Your task to perform on an android device: turn off location Image 0: 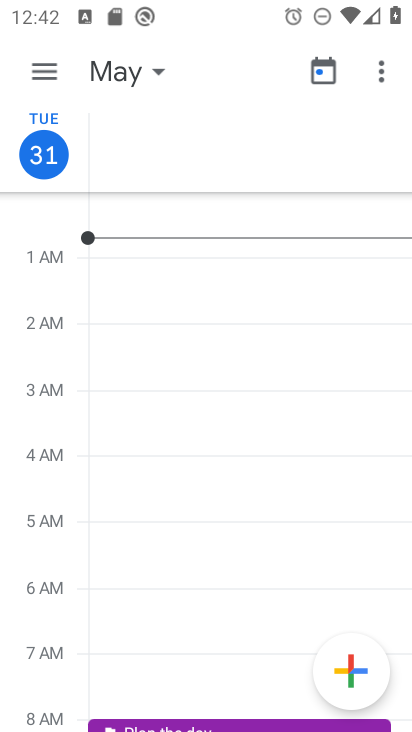
Step 0: drag from (237, 625) to (233, 215)
Your task to perform on an android device: turn off location Image 1: 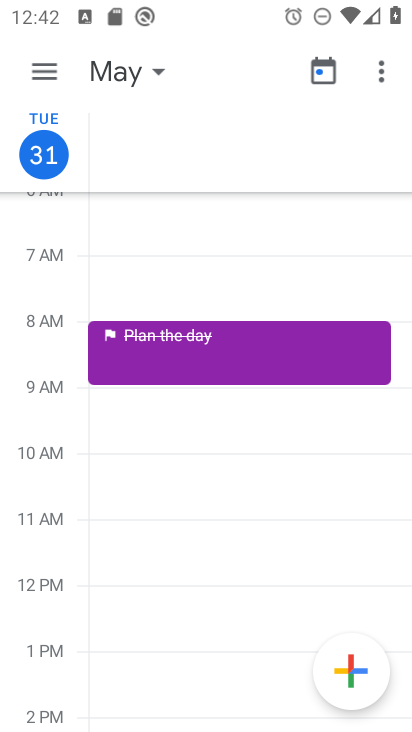
Step 1: press home button
Your task to perform on an android device: turn off location Image 2: 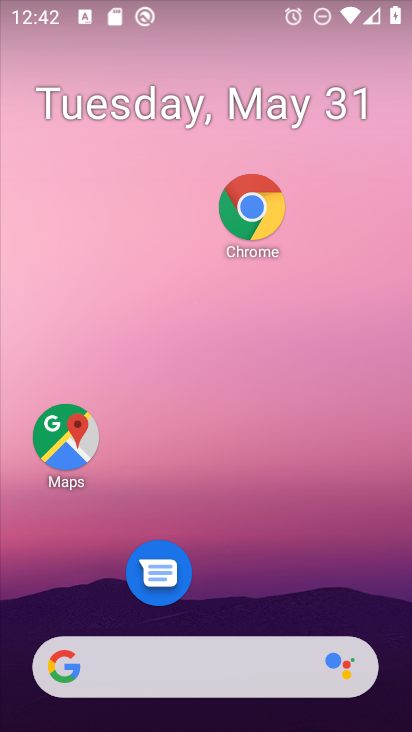
Step 2: drag from (282, 599) to (296, 64)
Your task to perform on an android device: turn off location Image 3: 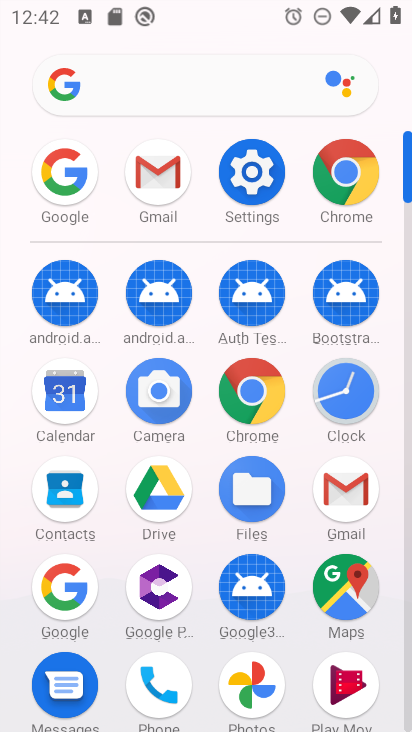
Step 3: click (252, 167)
Your task to perform on an android device: turn off location Image 4: 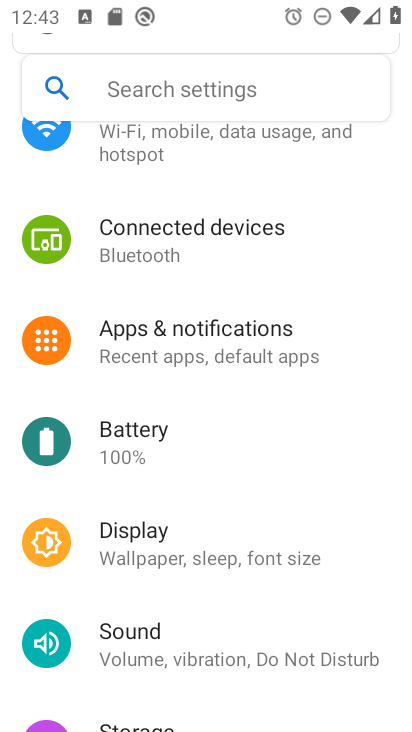
Step 4: drag from (215, 511) to (268, 117)
Your task to perform on an android device: turn off location Image 5: 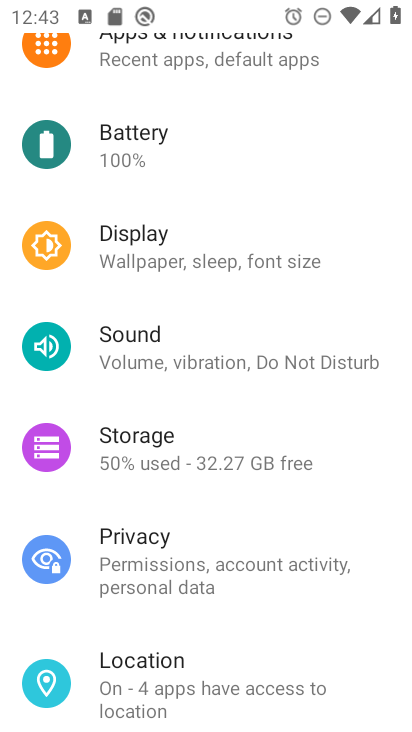
Step 5: click (215, 690)
Your task to perform on an android device: turn off location Image 6: 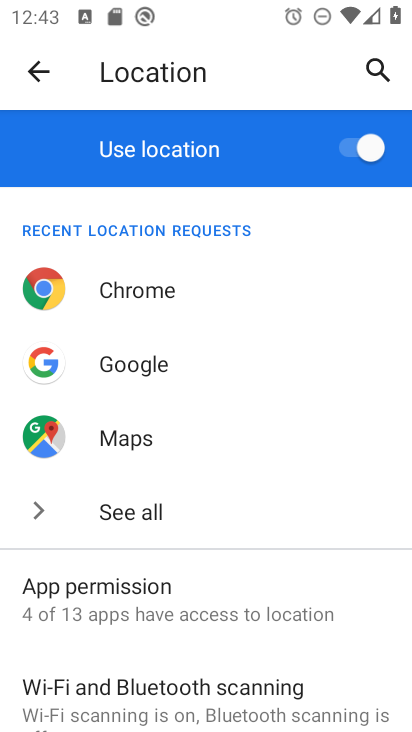
Step 6: click (344, 149)
Your task to perform on an android device: turn off location Image 7: 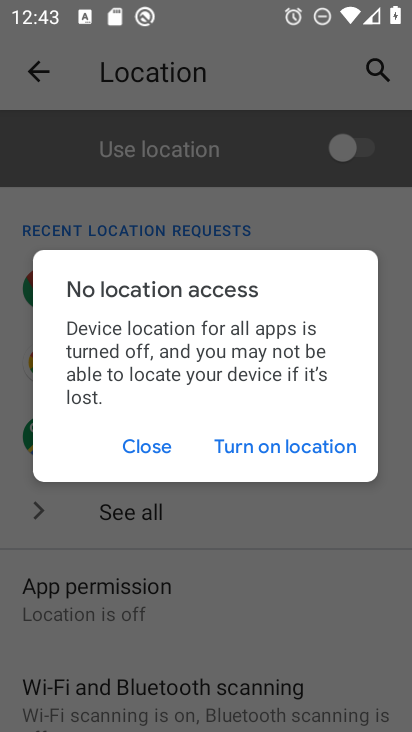
Step 7: click (143, 443)
Your task to perform on an android device: turn off location Image 8: 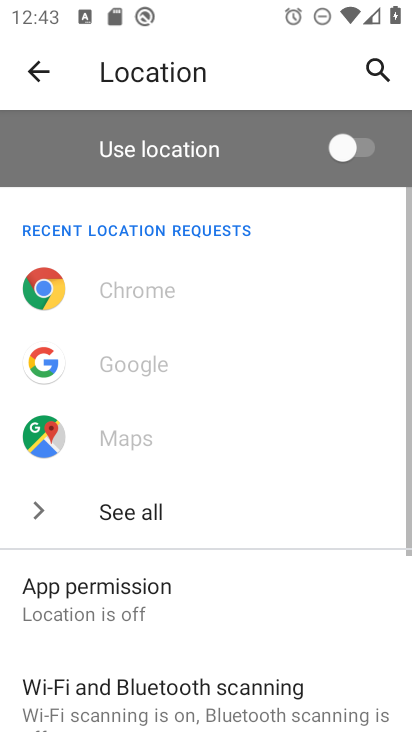
Step 8: task complete